Your task to perform on an android device: Show me recent news Image 0: 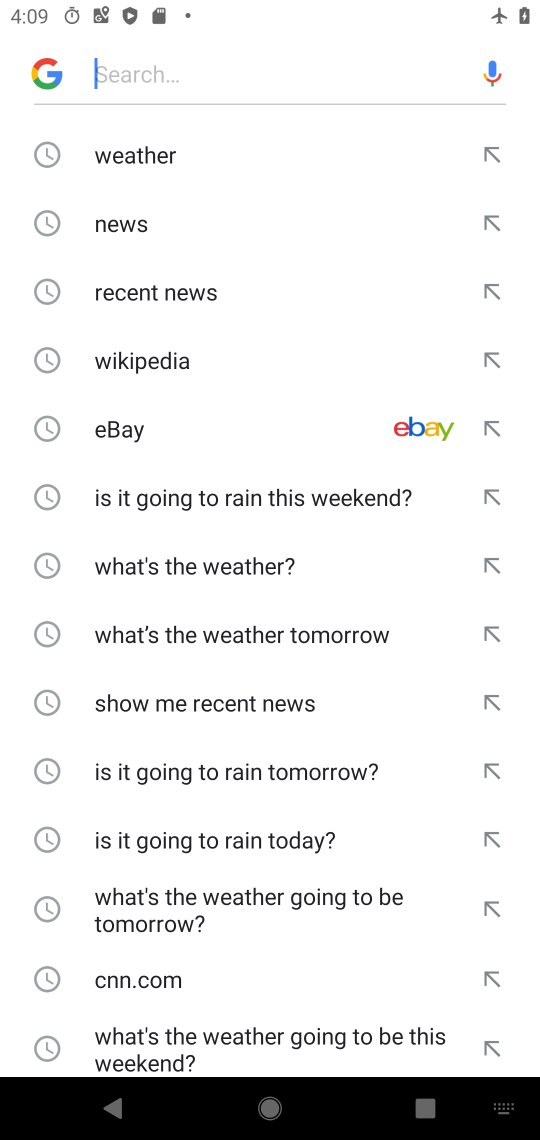
Step 0: press home button
Your task to perform on an android device: Show me recent news Image 1: 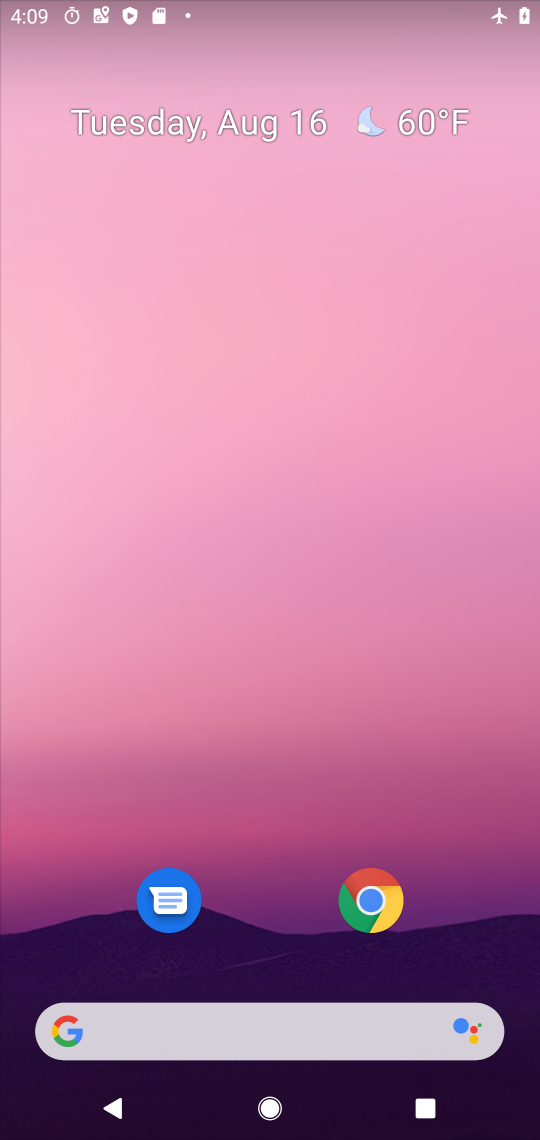
Step 1: task complete